Your task to perform on an android device: move an email to a new category in the gmail app Image 0: 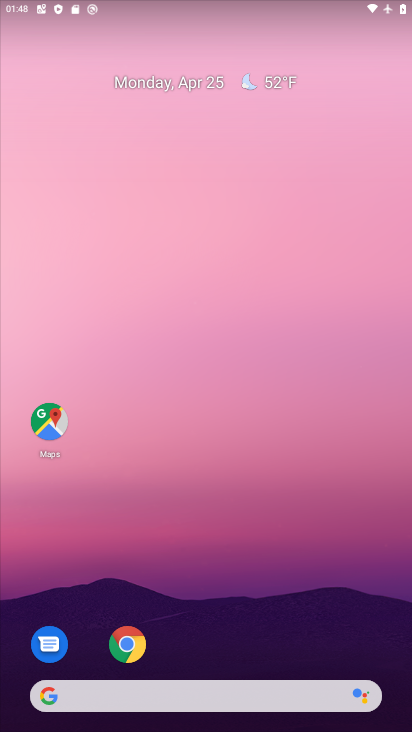
Step 0: drag from (305, 651) to (293, 217)
Your task to perform on an android device: move an email to a new category in the gmail app Image 1: 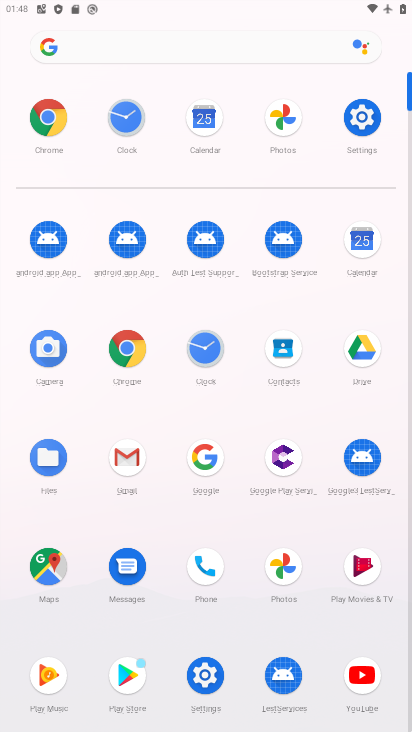
Step 1: click (126, 467)
Your task to perform on an android device: move an email to a new category in the gmail app Image 2: 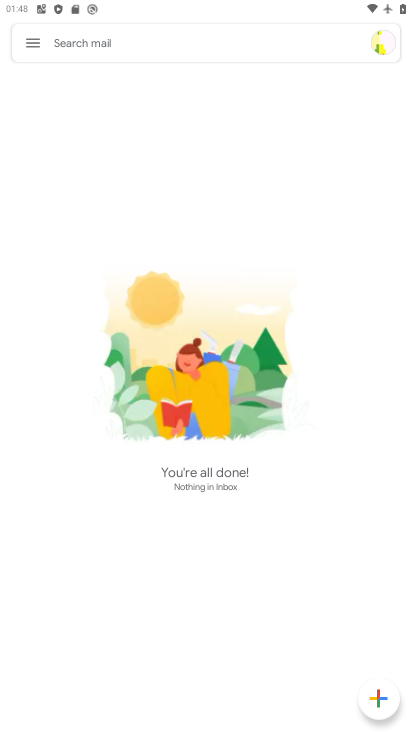
Step 2: click (25, 38)
Your task to perform on an android device: move an email to a new category in the gmail app Image 3: 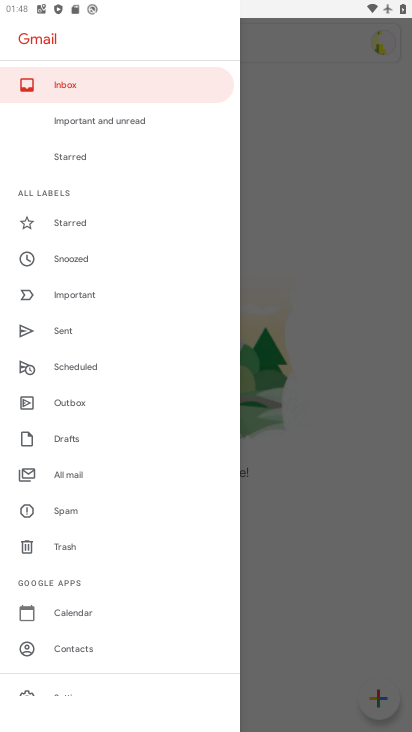
Step 3: click (81, 467)
Your task to perform on an android device: move an email to a new category in the gmail app Image 4: 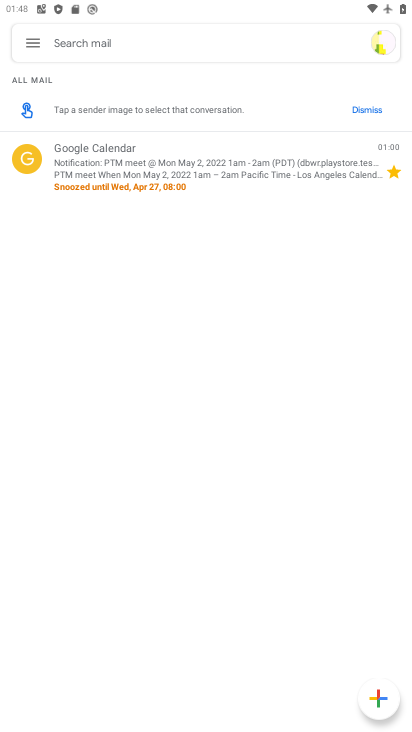
Step 4: click (291, 156)
Your task to perform on an android device: move an email to a new category in the gmail app Image 5: 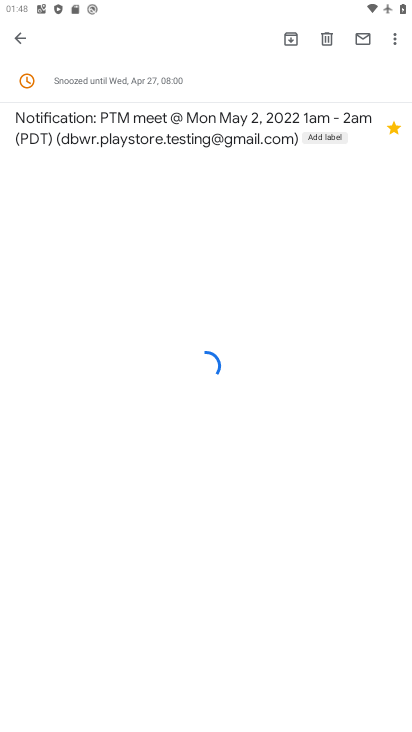
Step 5: click (399, 39)
Your task to perform on an android device: move an email to a new category in the gmail app Image 6: 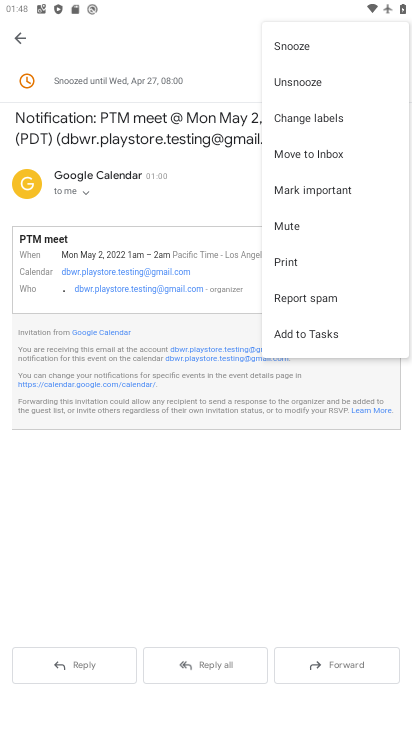
Step 6: click (314, 122)
Your task to perform on an android device: move an email to a new category in the gmail app Image 7: 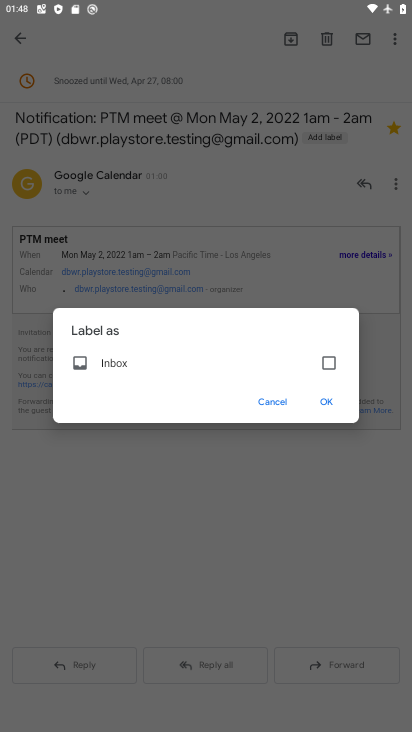
Step 7: click (200, 353)
Your task to perform on an android device: move an email to a new category in the gmail app Image 8: 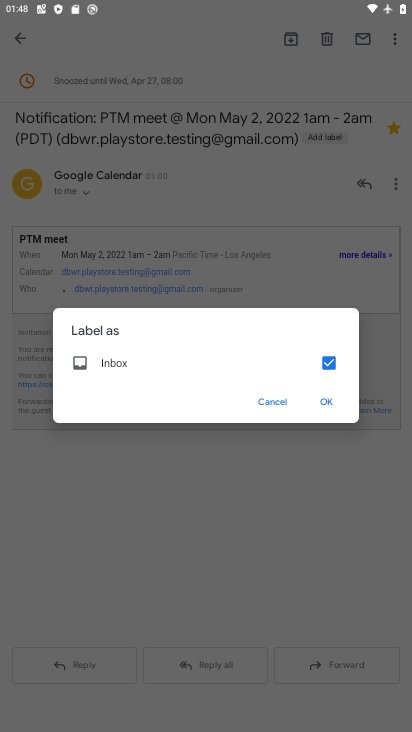
Step 8: task complete